Your task to perform on an android device: Search for pizza restaurants on Maps Image 0: 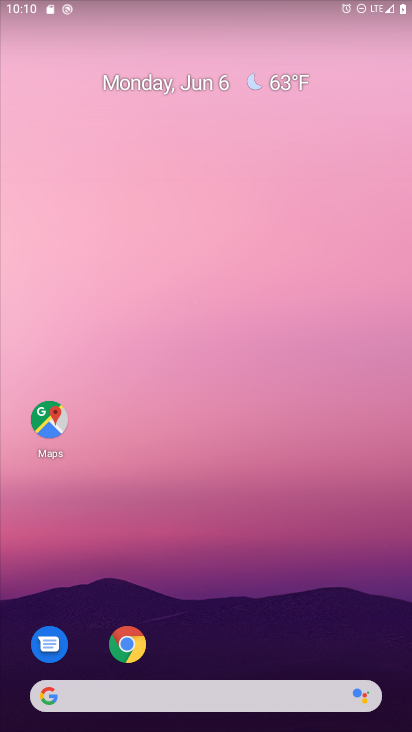
Step 0: drag from (239, 717) to (162, 158)
Your task to perform on an android device: Search for pizza restaurants on Maps Image 1: 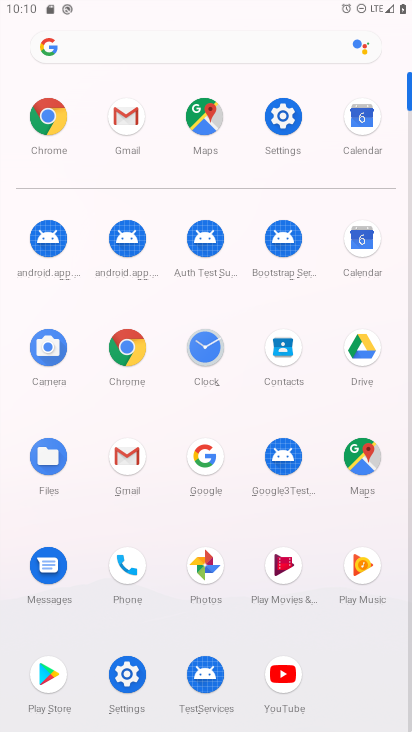
Step 1: click (210, 116)
Your task to perform on an android device: Search for pizza restaurants on Maps Image 2: 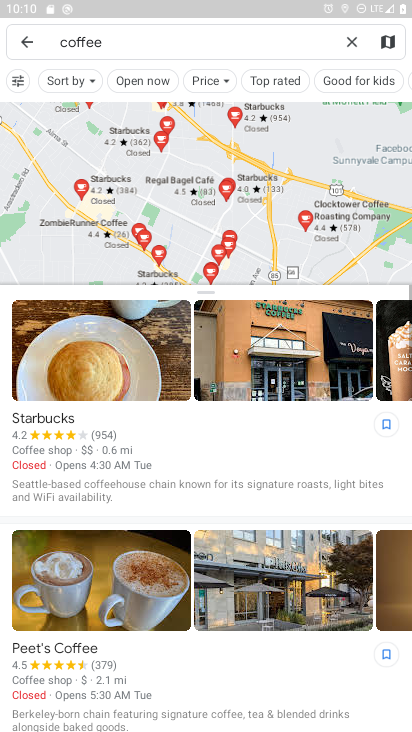
Step 2: click (349, 42)
Your task to perform on an android device: Search for pizza restaurants on Maps Image 3: 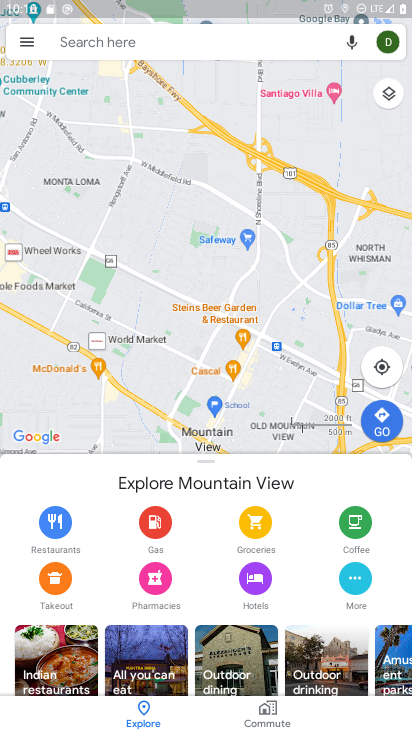
Step 3: click (156, 49)
Your task to perform on an android device: Search for pizza restaurants on Maps Image 4: 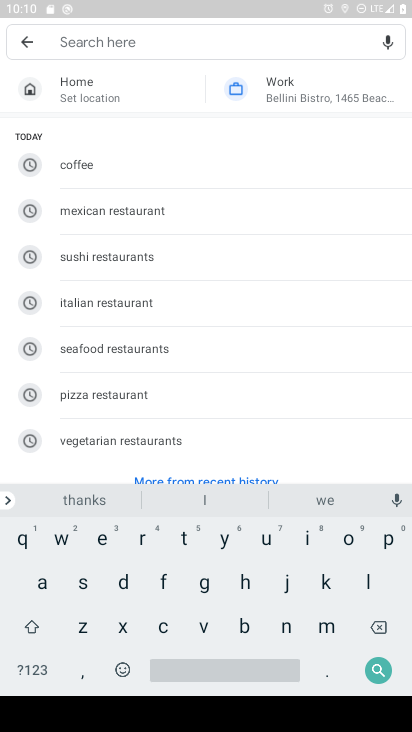
Step 4: click (159, 394)
Your task to perform on an android device: Search for pizza restaurants on Maps Image 5: 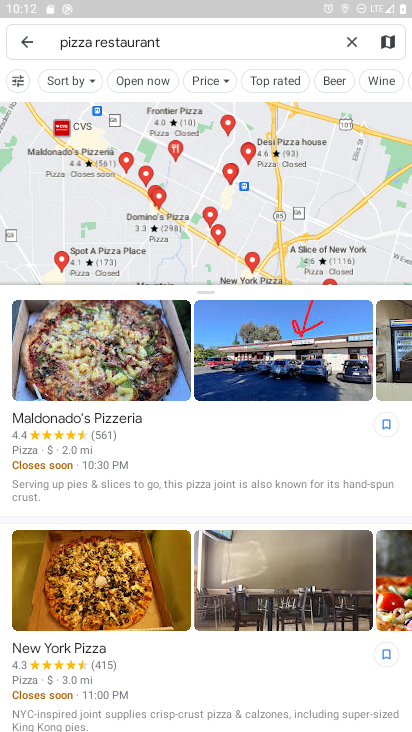
Step 5: task complete